Your task to perform on an android device: Search for Mexican restaurants on Maps Image 0: 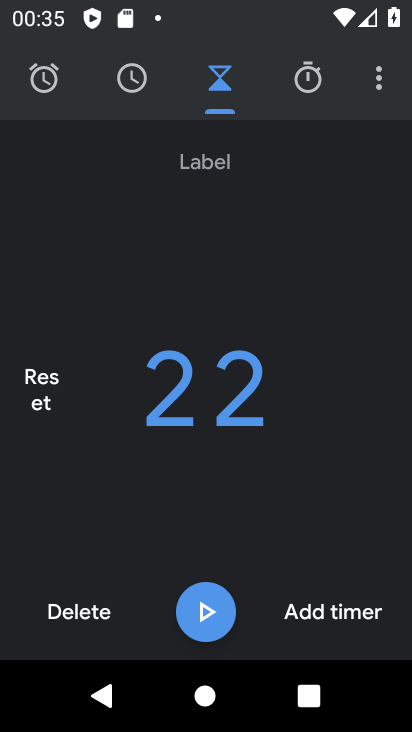
Step 0: press home button
Your task to perform on an android device: Search for Mexican restaurants on Maps Image 1: 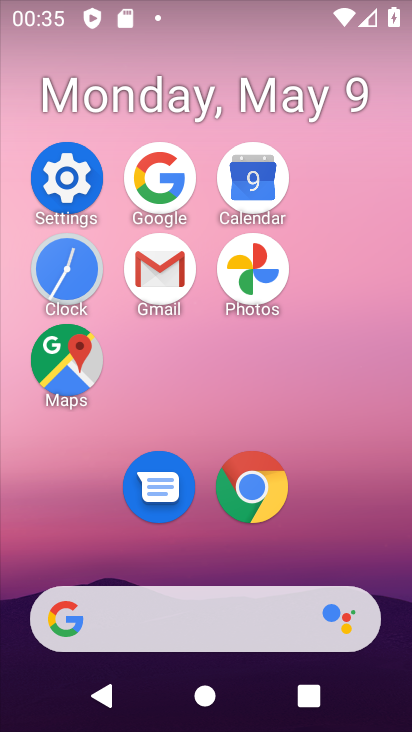
Step 1: click (52, 360)
Your task to perform on an android device: Search for Mexican restaurants on Maps Image 2: 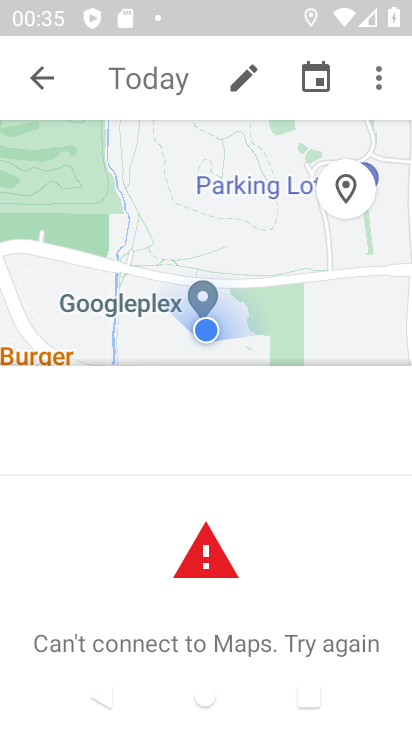
Step 2: click (28, 70)
Your task to perform on an android device: Search for Mexican restaurants on Maps Image 3: 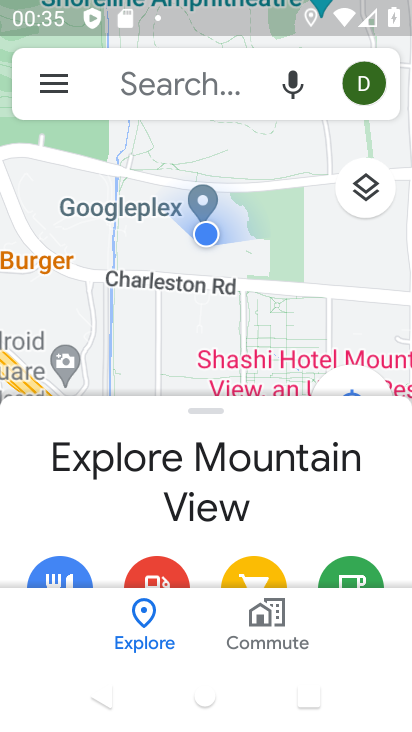
Step 3: click (186, 76)
Your task to perform on an android device: Search for Mexican restaurants on Maps Image 4: 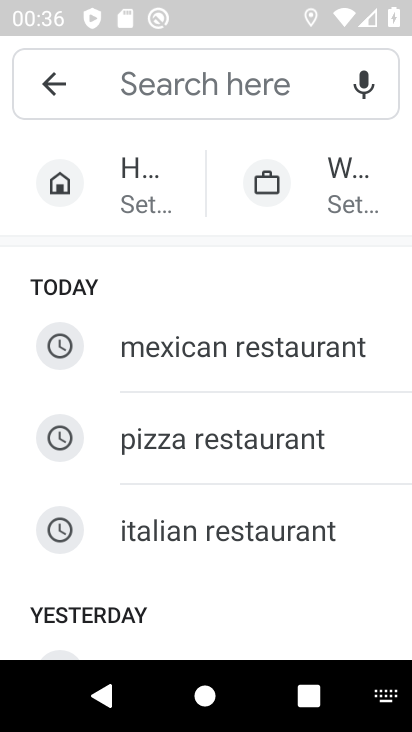
Step 4: type "mexican restaurants"
Your task to perform on an android device: Search for Mexican restaurants on Maps Image 5: 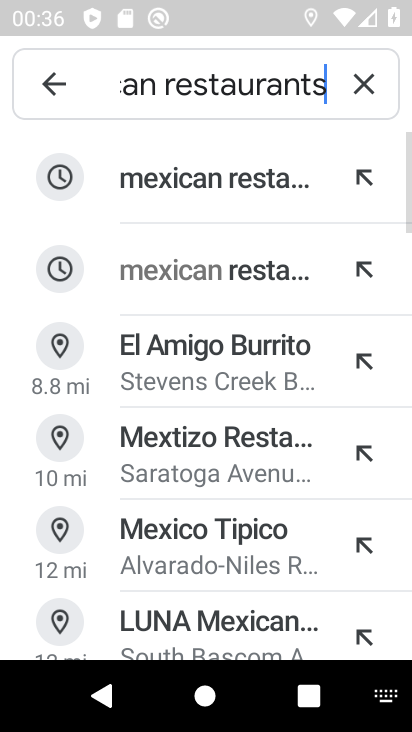
Step 5: task complete